Your task to perform on an android device: Show me productivity apps on the Play Store Image 0: 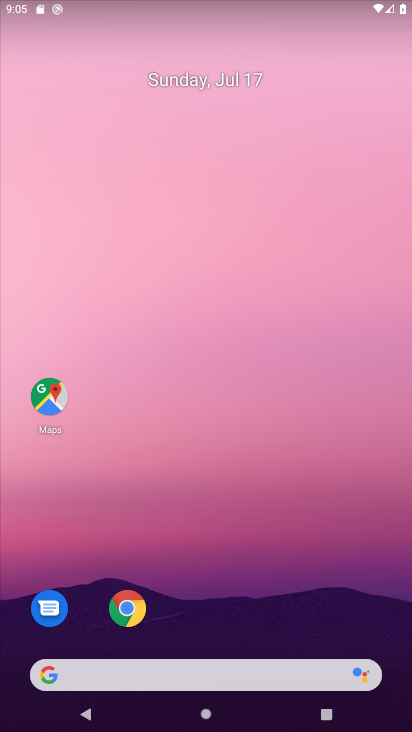
Step 0: drag from (249, 416) to (249, 356)
Your task to perform on an android device: Show me productivity apps on the Play Store Image 1: 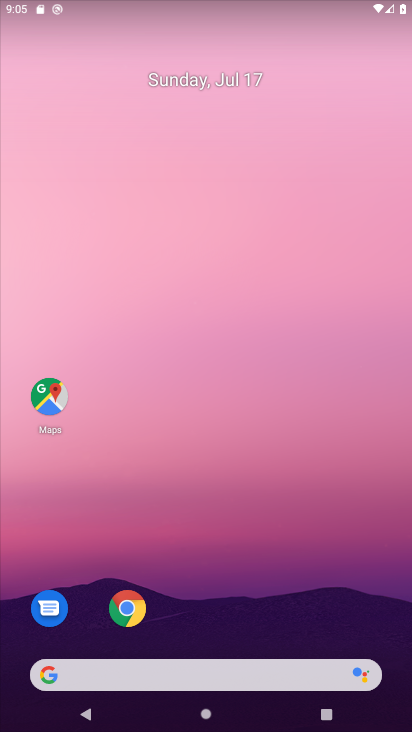
Step 1: drag from (180, 547) to (134, 221)
Your task to perform on an android device: Show me productivity apps on the Play Store Image 2: 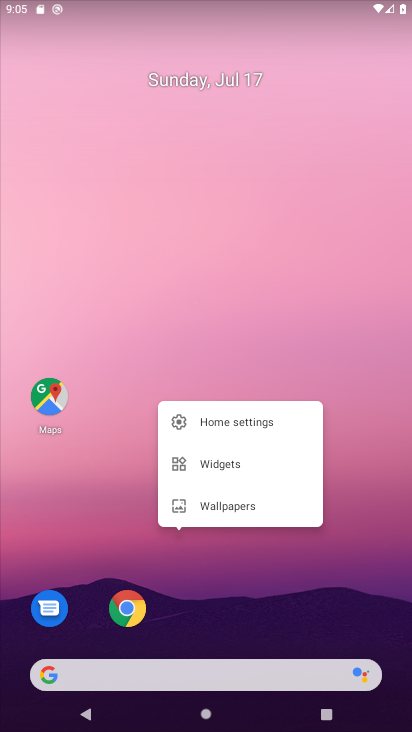
Step 2: drag from (182, 397) to (181, 239)
Your task to perform on an android device: Show me productivity apps on the Play Store Image 3: 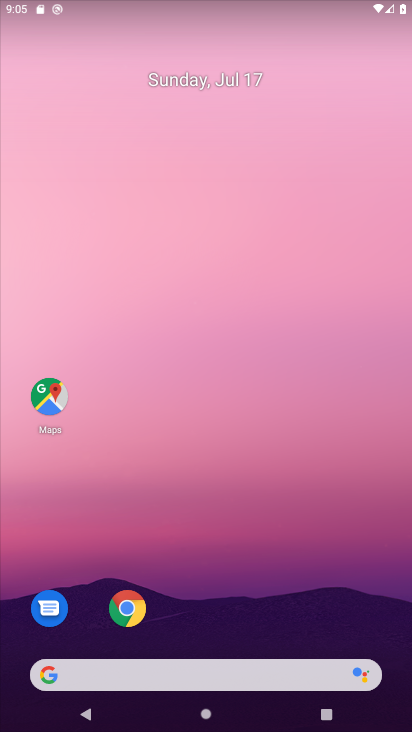
Step 3: drag from (258, 628) to (187, 13)
Your task to perform on an android device: Show me productivity apps on the Play Store Image 4: 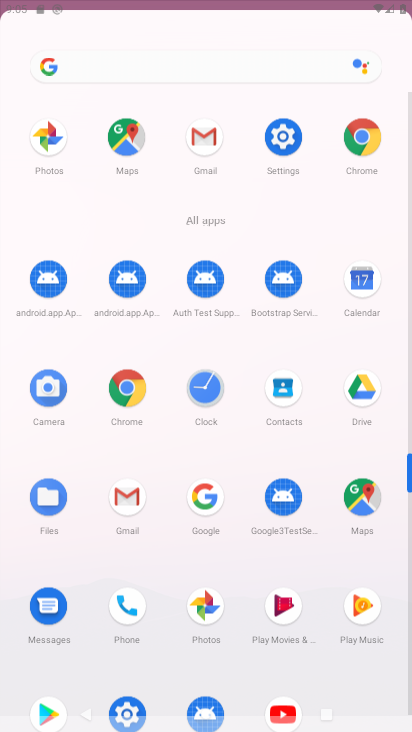
Step 4: drag from (176, 402) to (166, 82)
Your task to perform on an android device: Show me productivity apps on the Play Store Image 5: 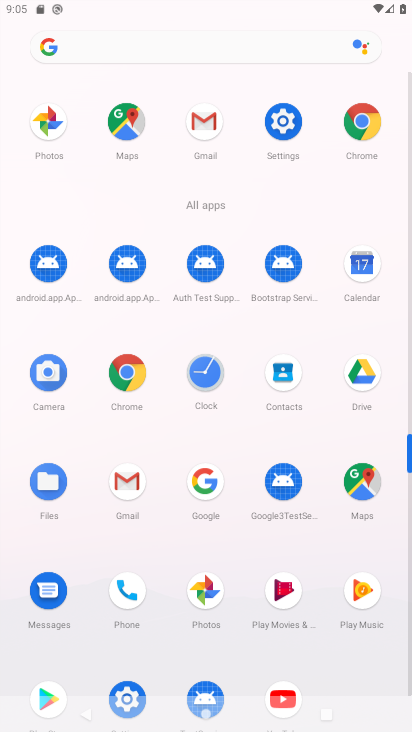
Step 5: drag from (153, 298) to (270, 83)
Your task to perform on an android device: Show me productivity apps on the Play Store Image 6: 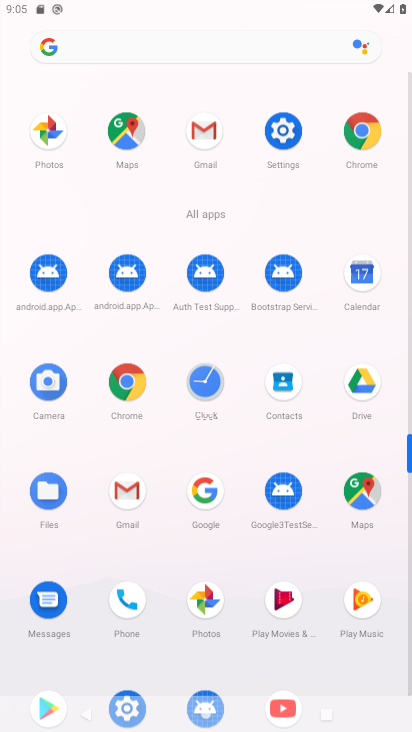
Step 6: drag from (168, 251) to (154, 180)
Your task to perform on an android device: Show me productivity apps on the Play Store Image 7: 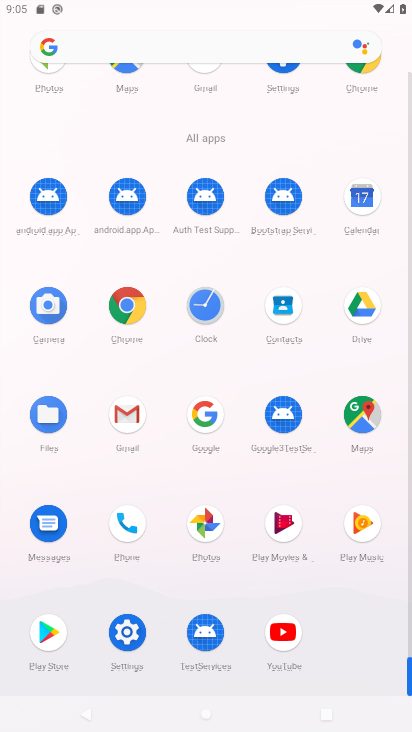
Step 7: drag from (176, 318) to (245, 325)
Your task to perform on an android device: Show me productivity apps on the Play Store Image 8: 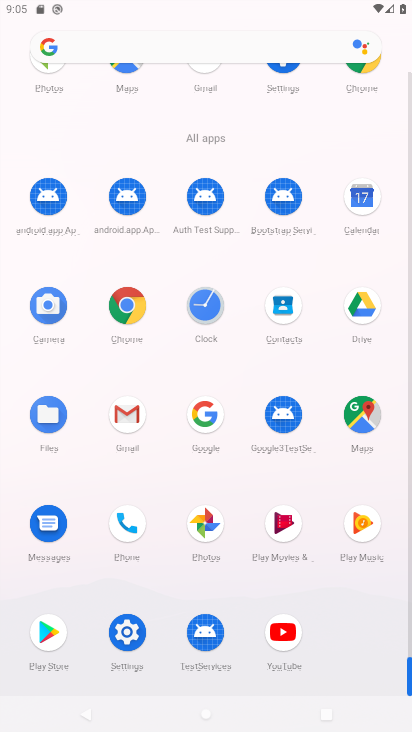
Step 8: drag from (209, 53) to (240, 21)
Your task to perform on an android device: Show me productivity apps on the Play Store Image 9: 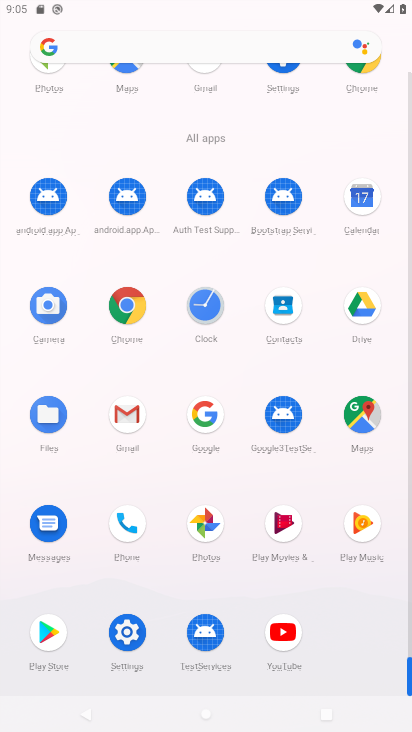
Step 9: click (367, 409)
Your task to perform on an android device: Show me productivity apps on the Play Store Image 10: 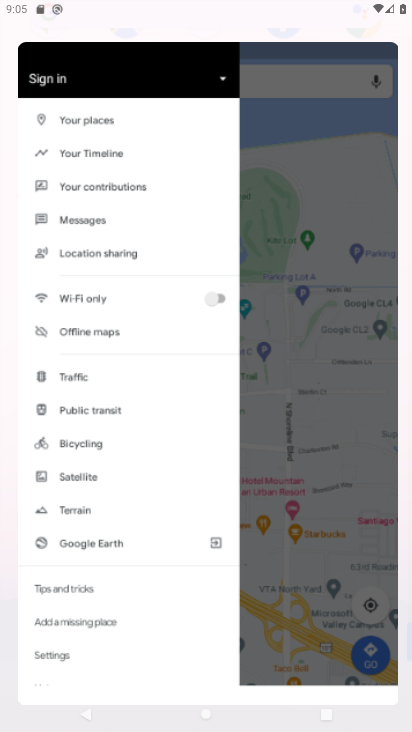
Step 10: click (374, 407)
Your task to perform on an android device: Show me productivity apps on the Play Store Image 11: 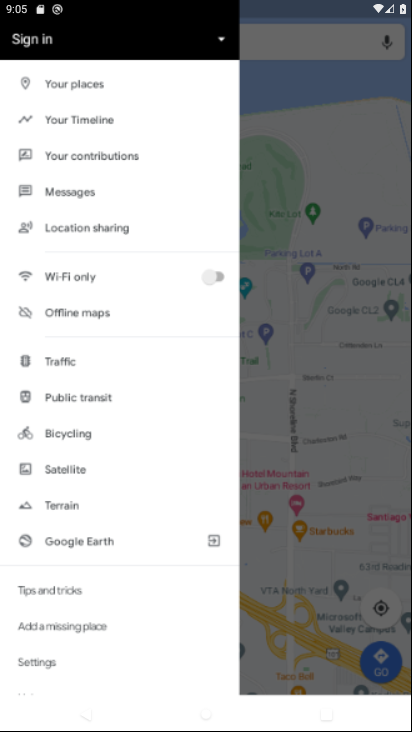
Step 11: click (374, 407)
Your task to perform on an android device: Show me productivity apps on the Play Store Image 12: 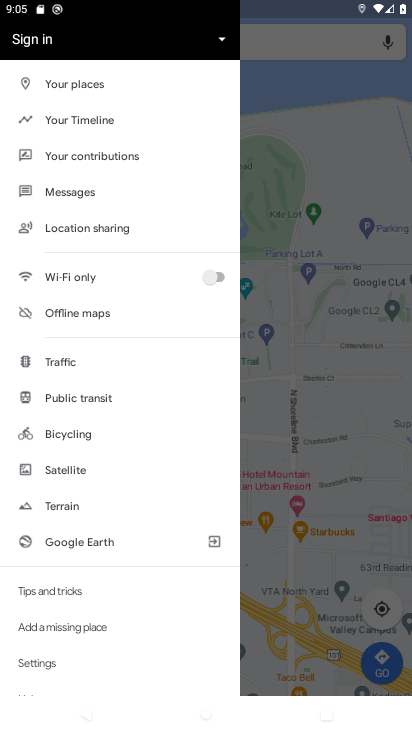
Step 12: press back button
Your task to perform on an android device: Show me productivity apps on the Play Store Image 13: 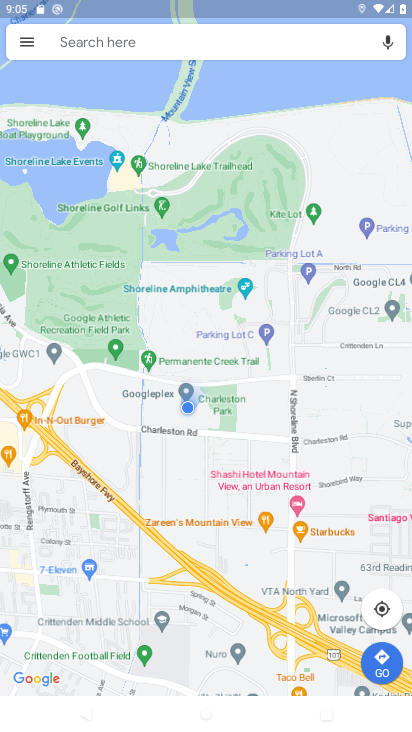
Step 13: press home button
Your task to perform on an android device: Show me productivity apps on the Play Store Image 14: 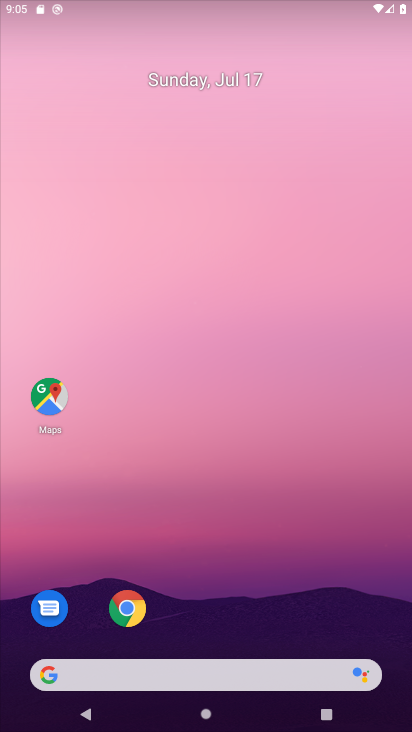
Step 14: drag from (274, 696) to (291, 23)
Your task to perform on an android device: Show me productivity apps on the Play Store Image 15: 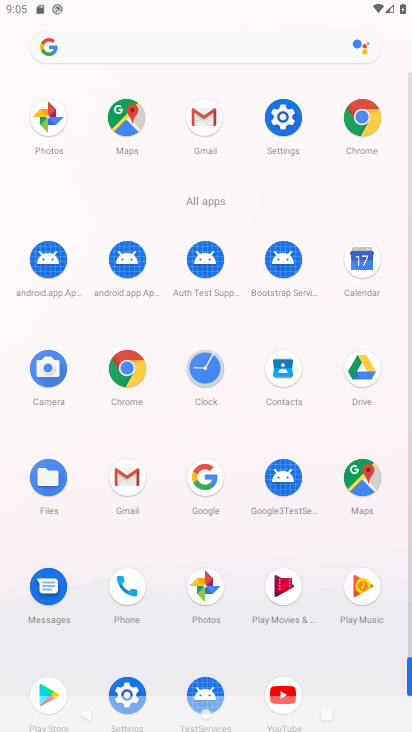
Step 15: drag from (257, 550) to (110, 63)
Your task to perform on an android device: Show me productivity apps on the Play Store Image 16: 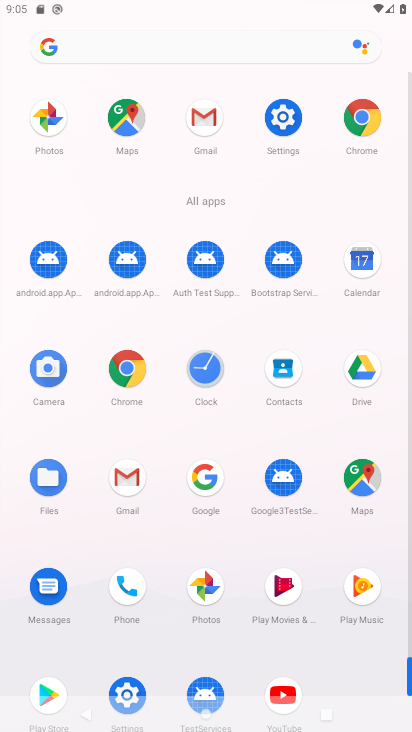
Step 16: click (49, 686)
Your task to perform on an android device: Show me productivity apps on the Play Store Image 17: 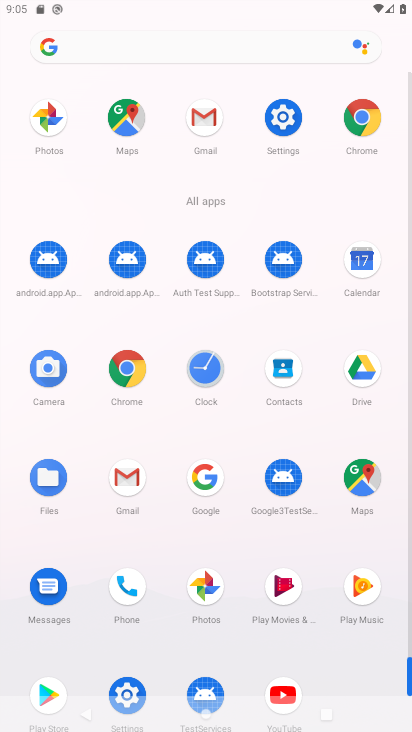
Step 17: click (49, 686)
Your task to perform on an android device: Show me productivity apps on the Play Store Image 18: 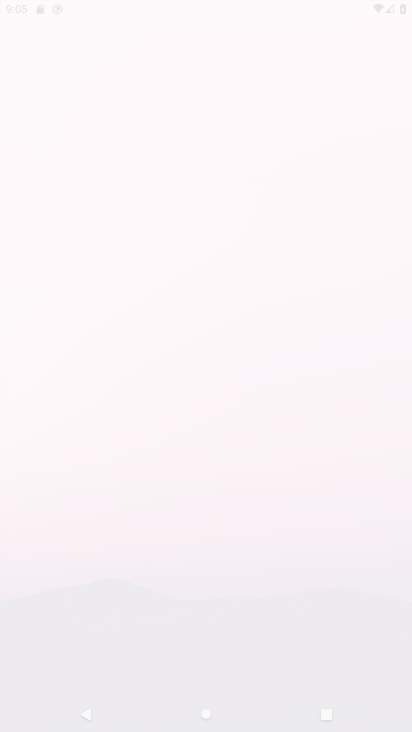
Step 18: click (49, 686)
Your task to perform on an android device: Show me productivity apps on the Play Store Image 19: 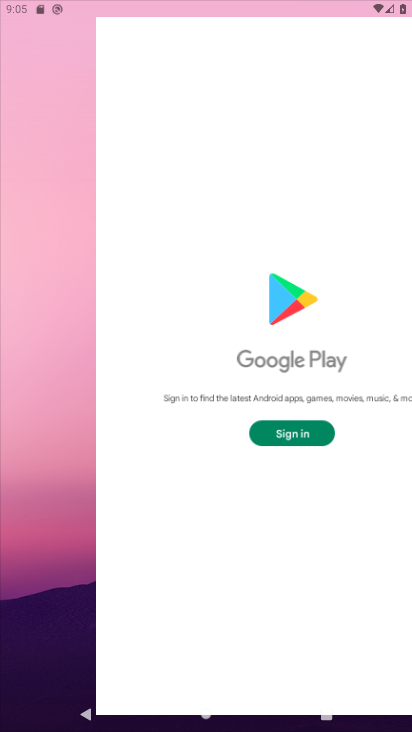
Step 19: click (49, 686)
Your task to perform on an android device: Show me productivity apps on the Play Store Image 20: 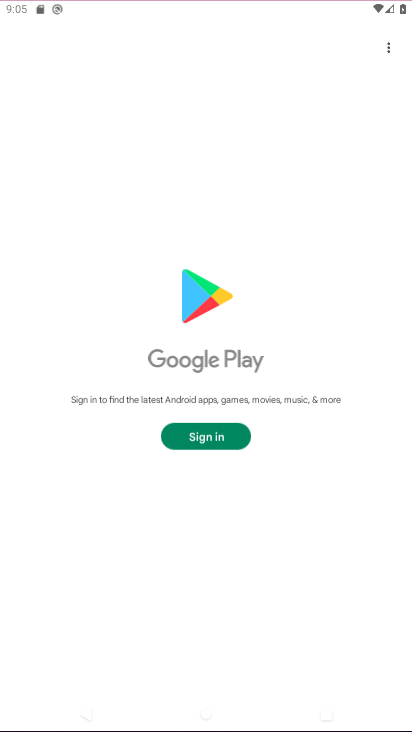
Step 20: click (50, 685)
Your task to perform on an android device: Show me productivity apps on the Play Store Image 21: 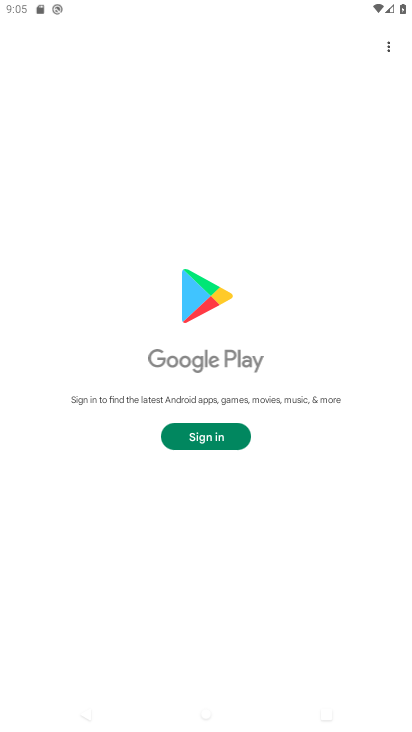
Step 21: task complete